Your task to perform on an android device: Open network settings Image 0: 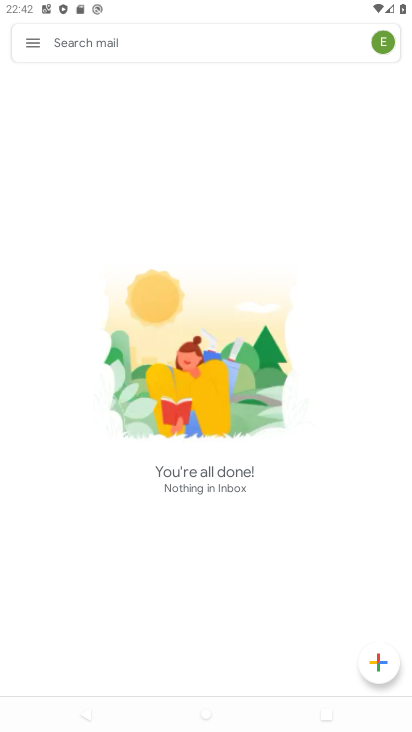
Step 0: press home button
Your task to perform on an android device: Open network settings Image 1: 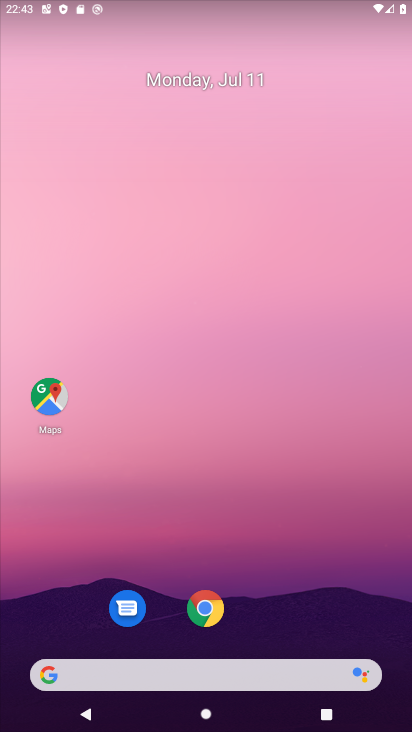
Step 1: drag from (41, 705) to (286, 15)
Your task to perform on an android device: Open network settings Image 2: 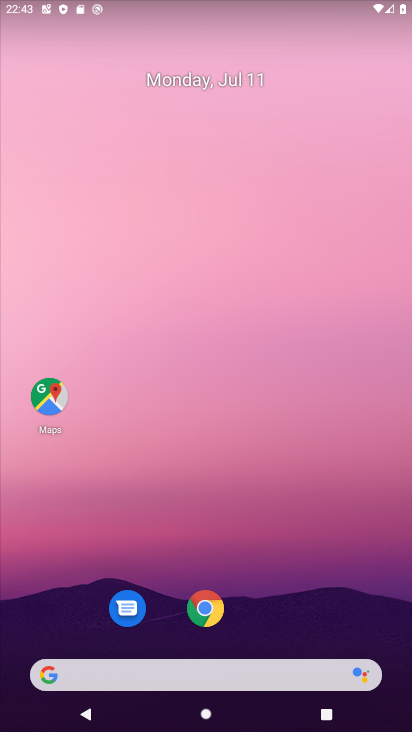
Step 2: drag from (35, 703) to (175, 21)
Your task to perform on an android device: Open network settings Image 3: 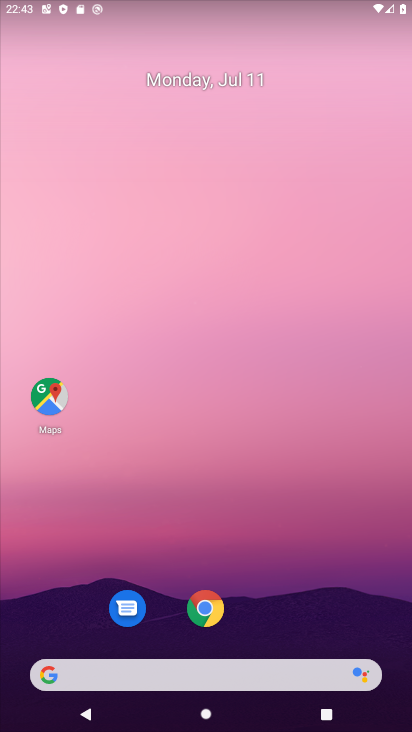
Step 3: drag from (45, 715) to (320, 176)
Your task to perform on an android device: Open network settings Image 4: 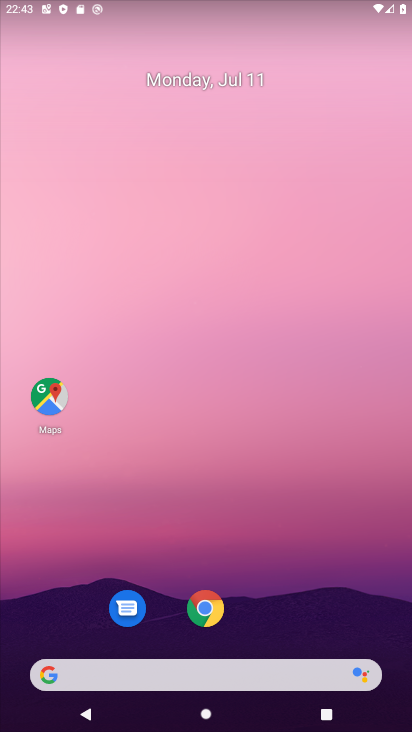
Step 4: drag from (49, 713) to (162, 153)
Your task to perform on an android device: Open network settings Image 5: 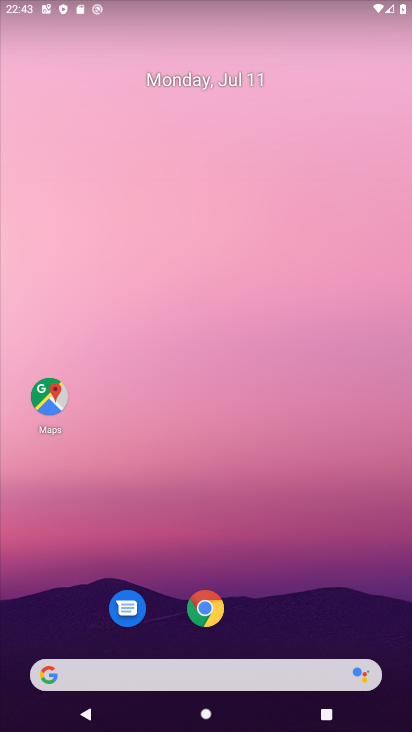
Step 5: drag from (33, 715) to (230, 34)
Your task to perform on an android device: Open network settings Image 6: 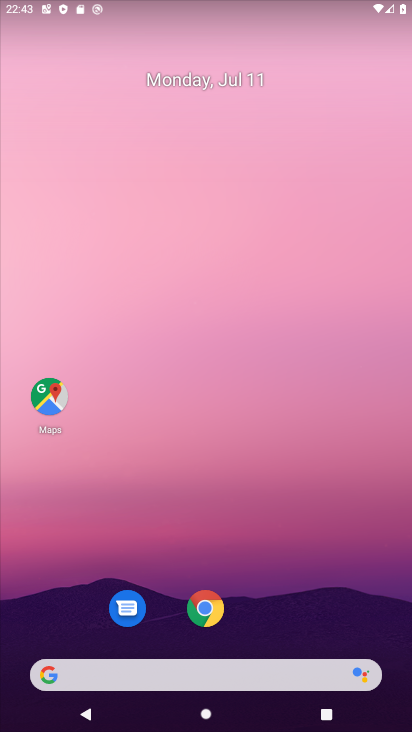
Step 6: drag from (47, 691) to (174, 45)
Your task to perform on an android device: Open network settings Image 7: 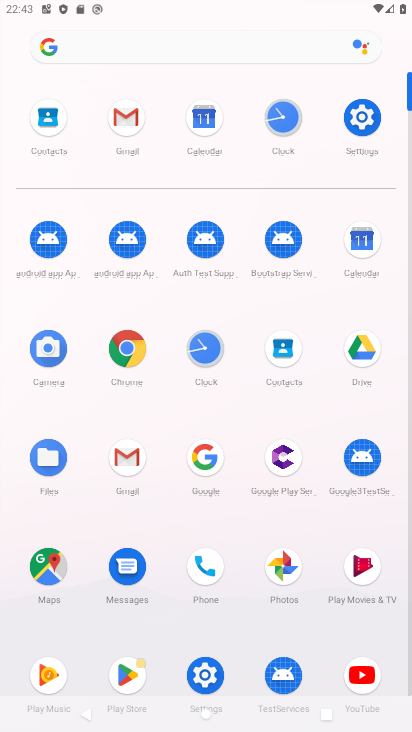
Step 7: click (199, 679)
Your task to perform on an android device: Open network settings Image 8: 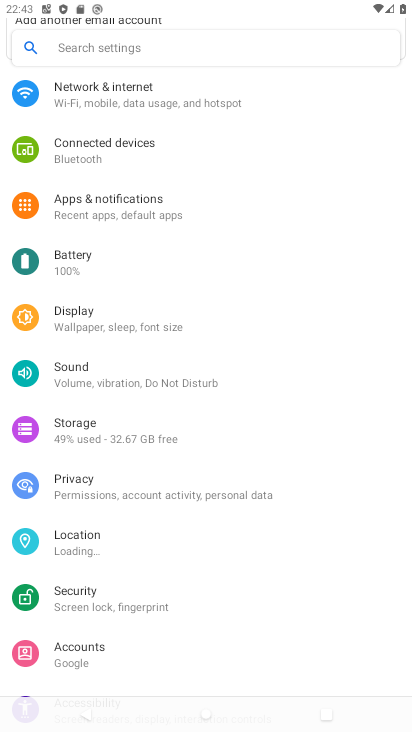
Step 8: click (95, 98)
Your task to perform on an android device: Open network settings Image 9: 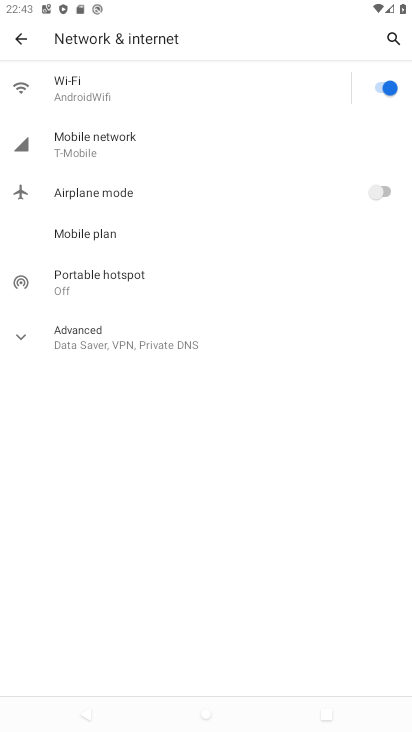
Step 9: click (82, 129)
Your task to perform on an android device: Open network settings Image 10: 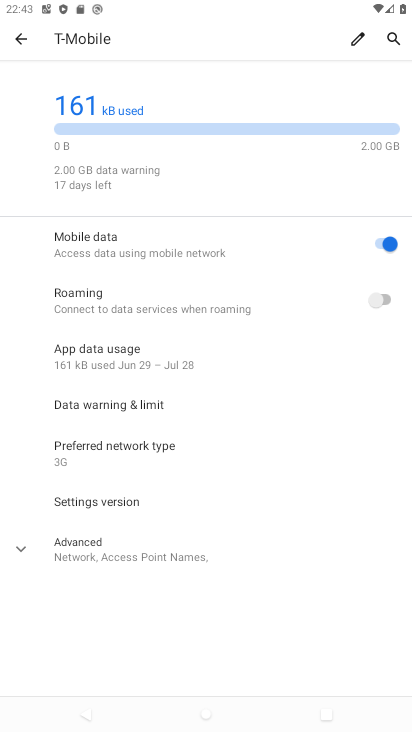
Step 10: task complete